Your task to perform on an android device: add a contact in the contacts app Image 0: 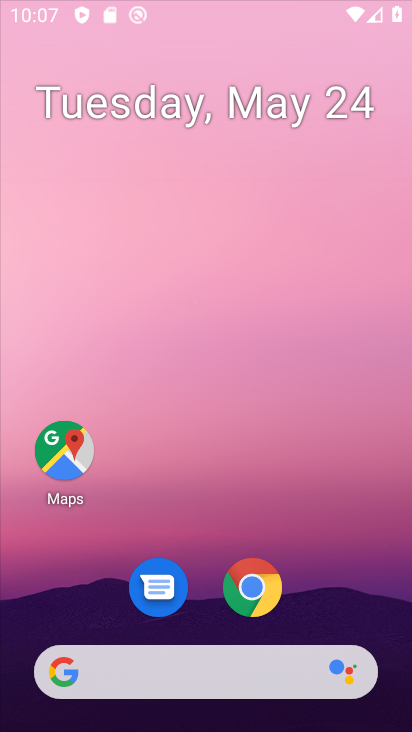
Step 0: press home button
Your task to perform on an android device: add a contact in the contacts app Image 1: 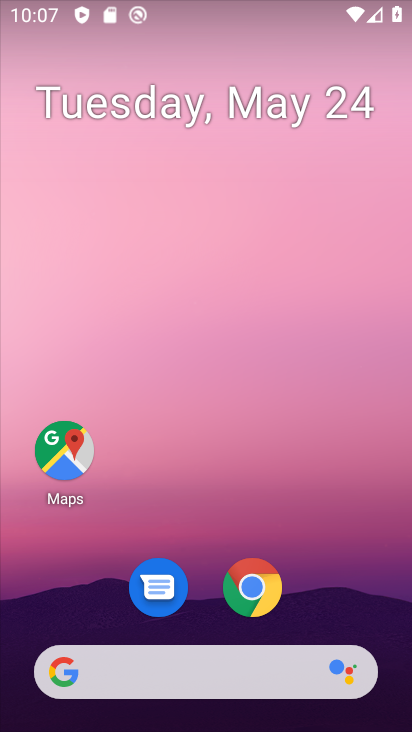
Step 1: drag from (371, 600) to (291, 140)
Your task to perform on an android device: add a contact in the contacts app Image 2: 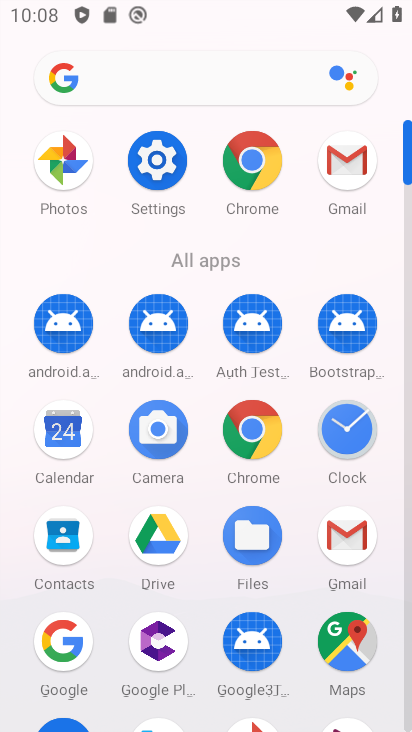
Step 2: click (73, 531)
Your task to perform on an android device: add a contact in the contacts app Image 3: 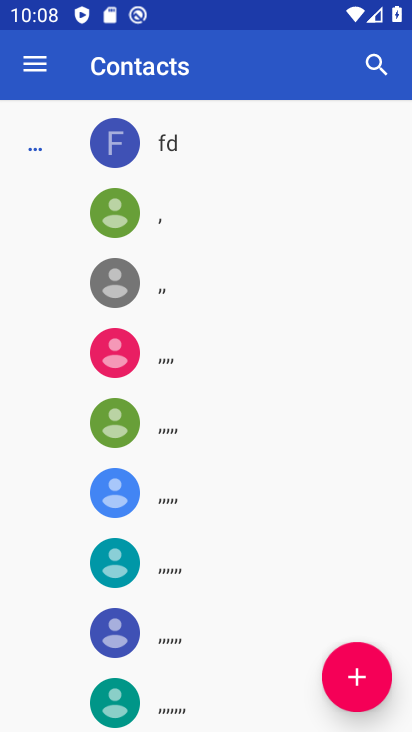
Step 3: click (379, 668)
Your task to perform on an android device: add a contact in the contacts app Image 4: 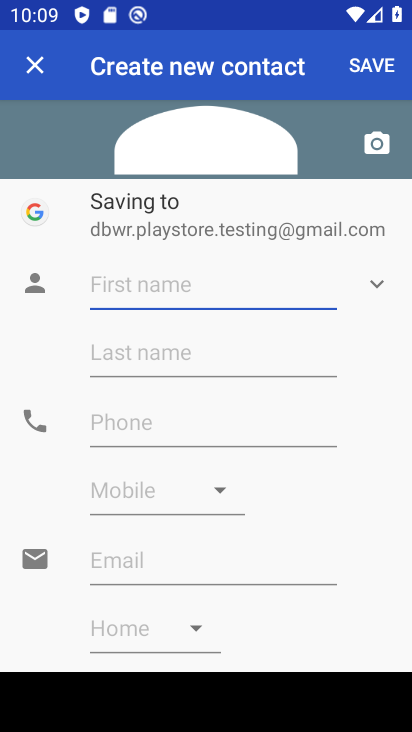
Step 4: type "kl"
Your task to perform on an android device: add a contact in the contacts app Image 5: 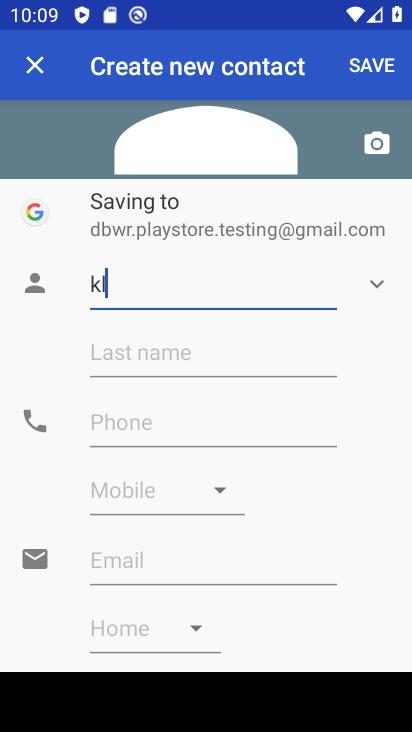
Step 5: type ""
Your task to perform on an android device: add a contact in the contacts app Image 6: 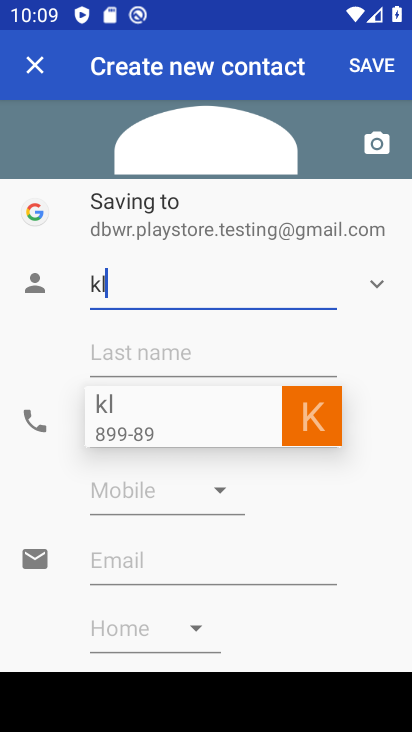
Step 6: click (405, 547)
Your task to perform on an android device: add a contact in the contacts app Image 7: 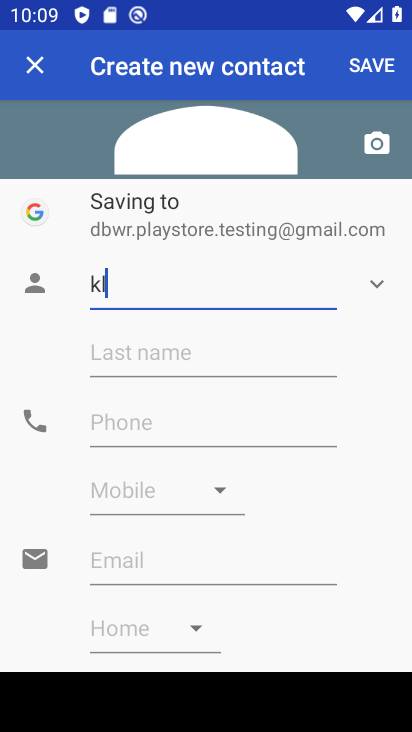
Step 7: click (298, 413)
Your task to perform on an android device: add a contact in the contacts app Image 8: 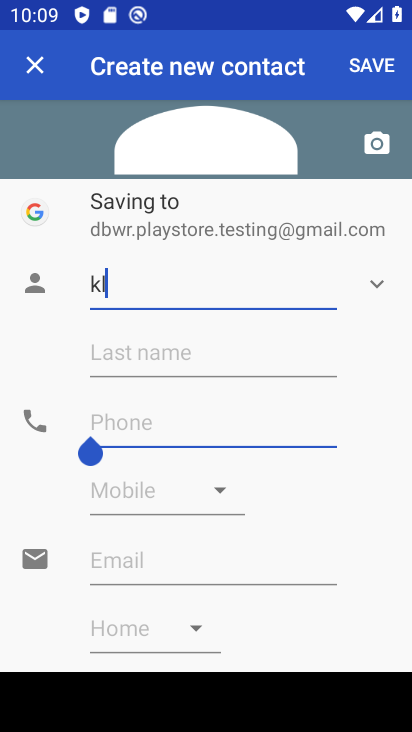
Step 8: click (298, 413)
Your task to perform on an android device: add a contact in the contacts app Image 9: 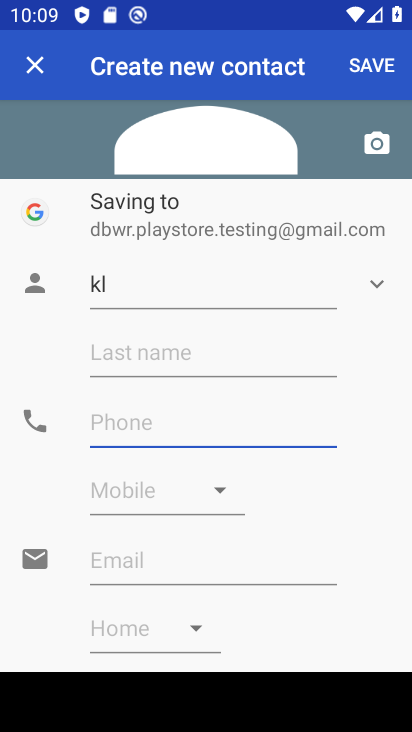
Step 9: type "[/"
Your task to perform on an android device: add a contact in the contacts app Image 10: 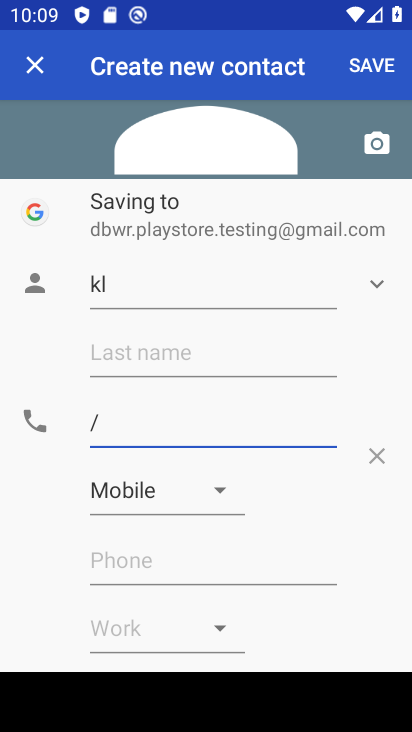
Step 10: click (352, 57)
Your task to perform on an android device: add a contact in the contacts app Image 11: 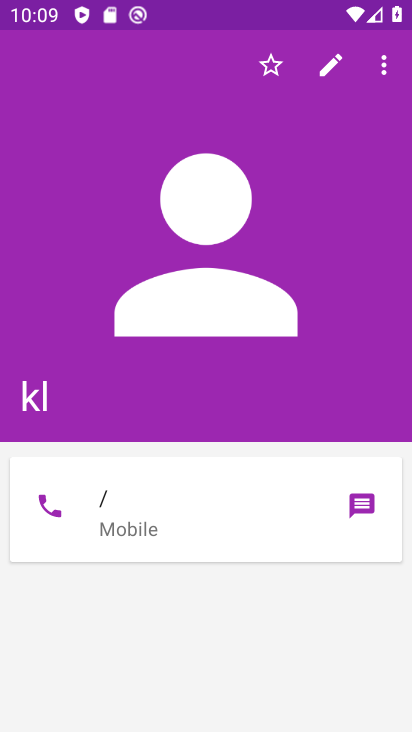
Step 11: task complete